Your task to perform on an android device: turn off location Image 0: 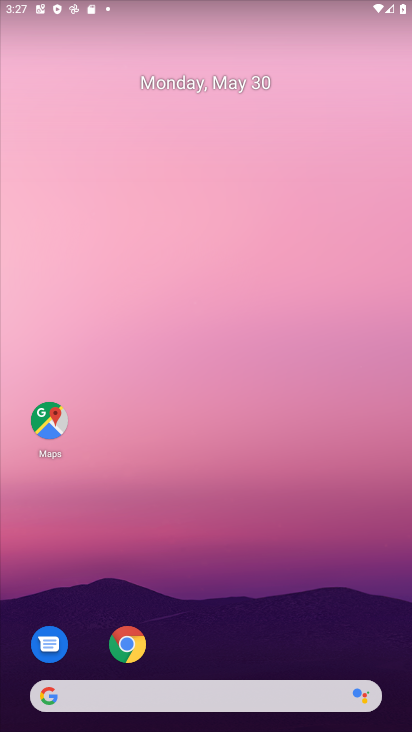
Step 0: drag from (282, 648) to (250, 0)
Your task to perform on an android device: turn off location Image 1: 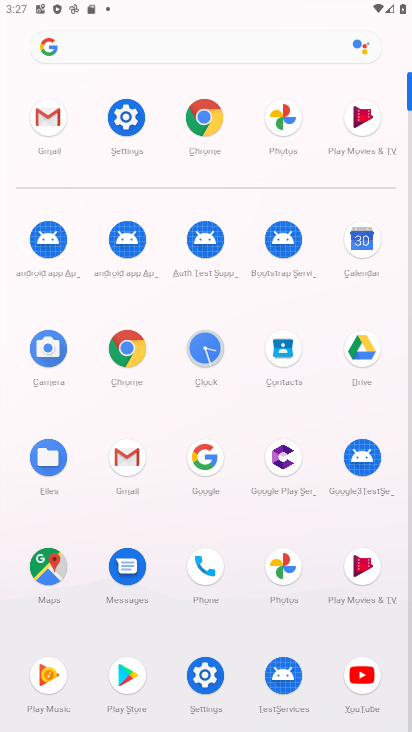
Step 1: click (120, 127)
Your task to perform on an android device: turn off location Image 2: 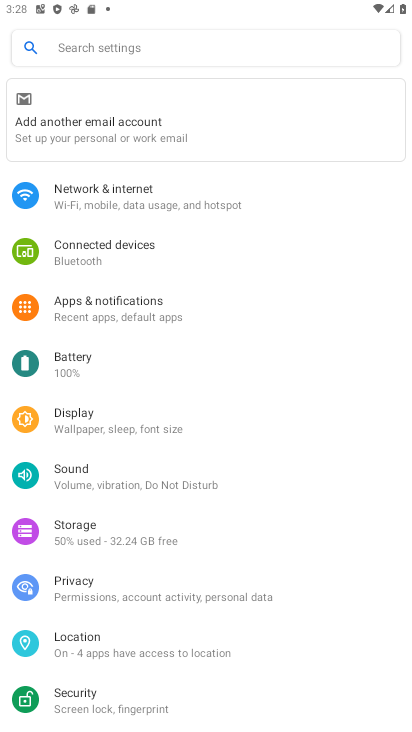
Step 2: click (163, 648)
Your task to perform on an android device: turn off location Image 3: 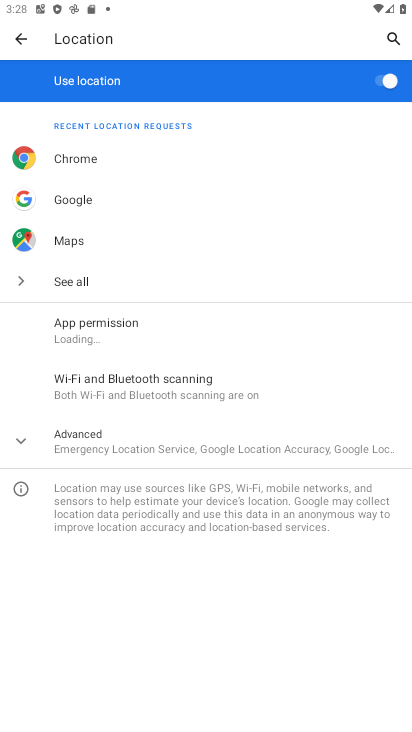
Step 3: task complete